Your task to perform on an android device: turn off data saver in the chrome app Image 0: 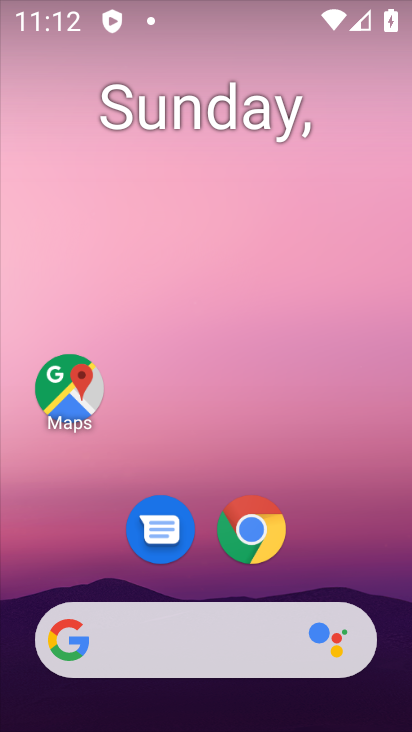
Step 0: drag from (373, 601) to (305, 66)
Your task to perform on an android device: turn off data saver in the chrome app Image 1: 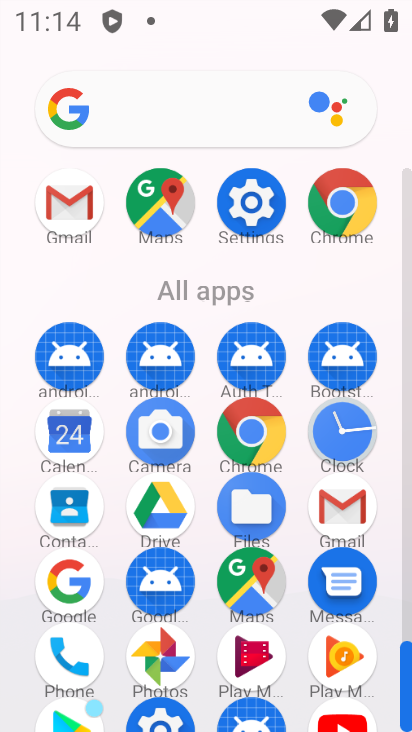
Step 1: click (346, 208)
Your task to perform on an android device: turn off data saver in the chrome app Image 2: 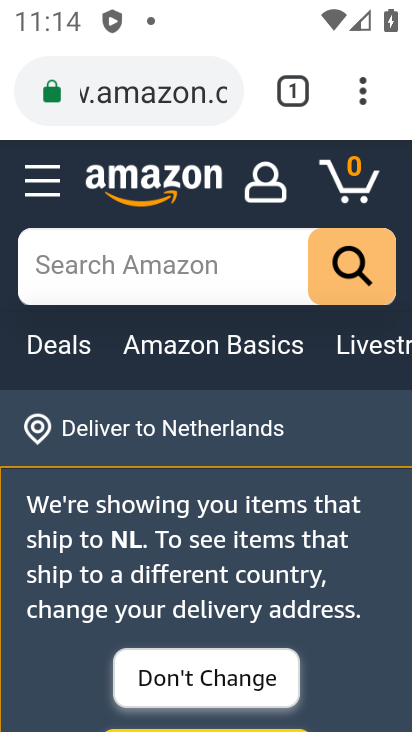
Step 2: press back button
Your task to perform on an android device: turn off data saver in the chrome app Image 3: 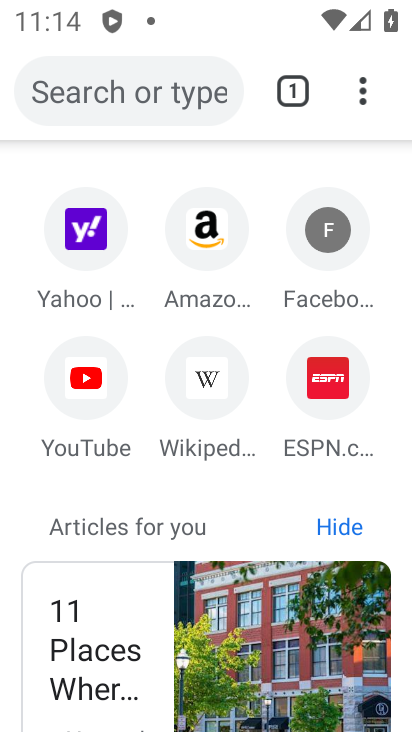
Step 3: click (364, 88)
Your task to perform on an android device: turn off data saver in the chrome app Image 4: 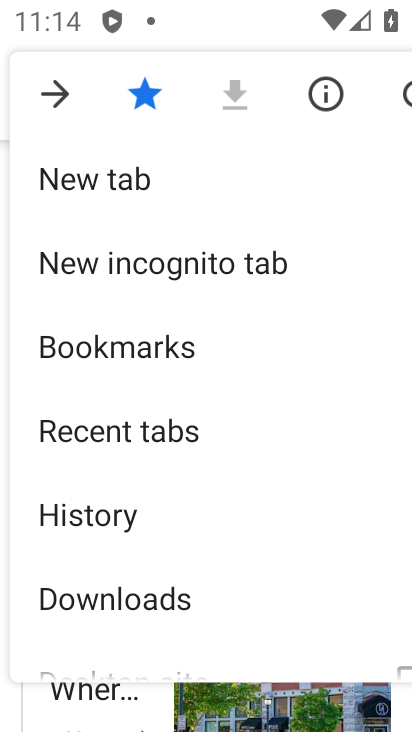
Step 4: drag from (116, 602) to (214, 171)
Your task to perform on an android device: turn off data saver in the chrome app Image 5: 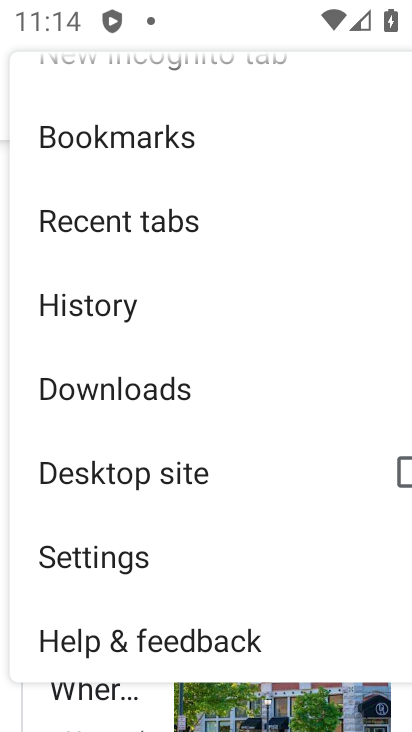
Step 5: click (117, 586)
Your task to perform on an android device: turn off data saver in the chrome app Image 6: 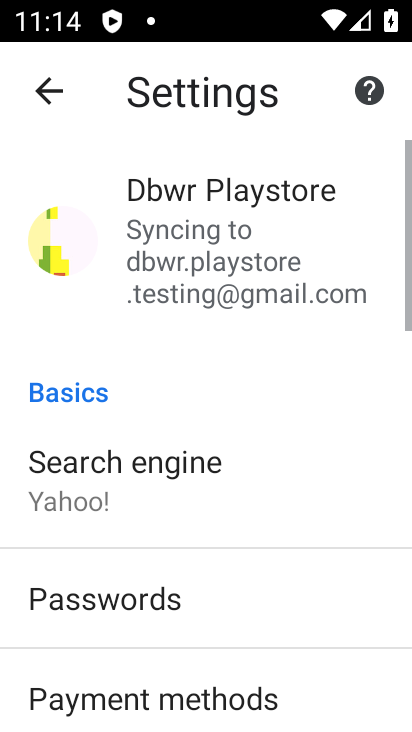
Step 6: drag from (102, 604) to (202, 125)
Your task to perform on an android device: turn off data saver in the chrome app Image 7: 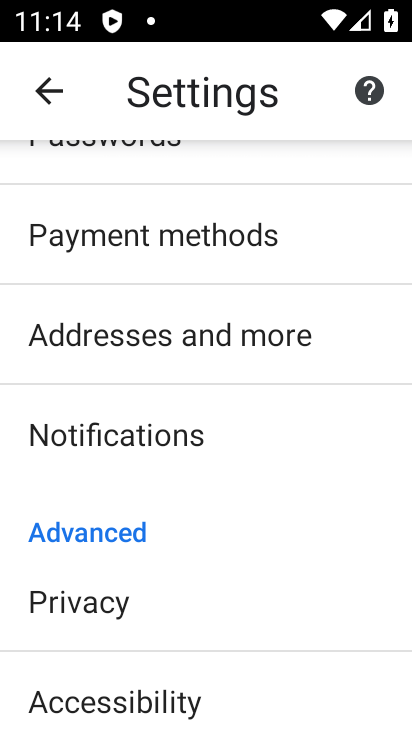
Step 7: drag from (99, 637) to (211, 200)
Your task to perform on an android device: turn off data saver in the chrome app Image 8: 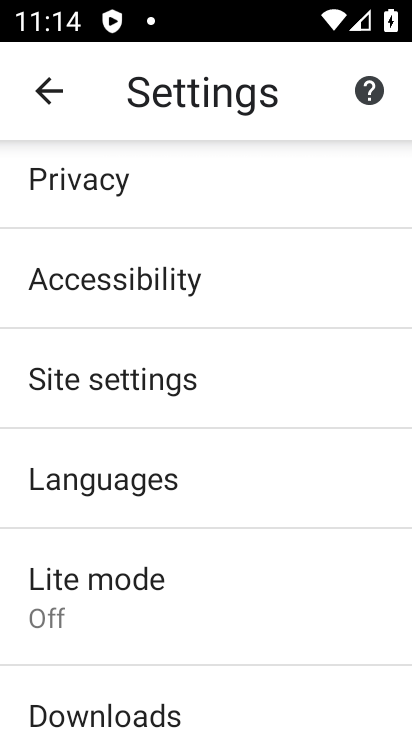
Step 8: click (143, 586)
Your task to perform on an android device: turn off data saver in the chrome app Image 9: 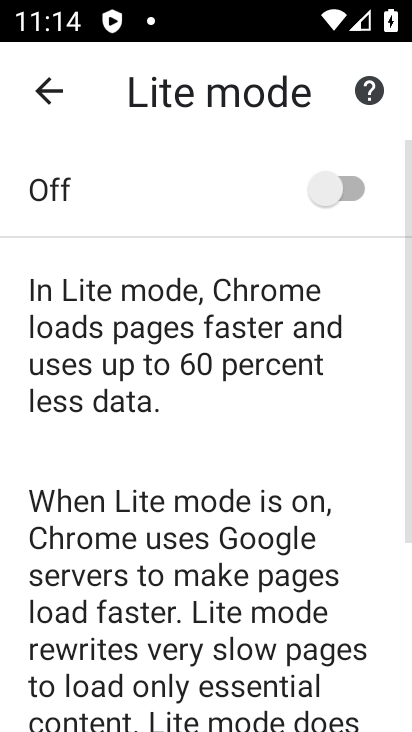
Step 9: task complete